Your task to perform on an android device: see sites visited before in the chrome app Image 0: 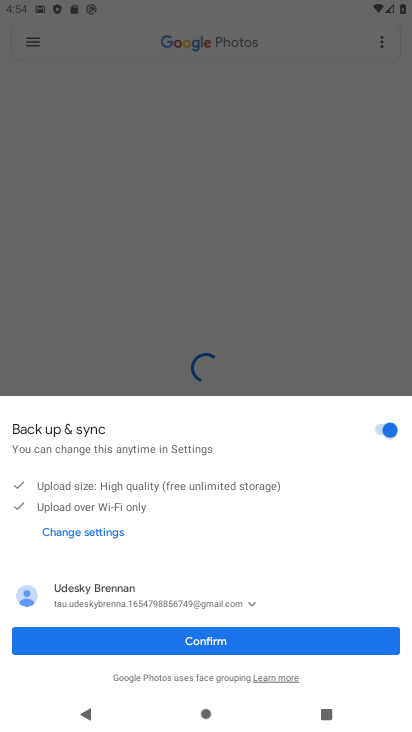
Step 0: press home button
Your task to perform on an android device: see sites visited before in the chrome app Image 1: 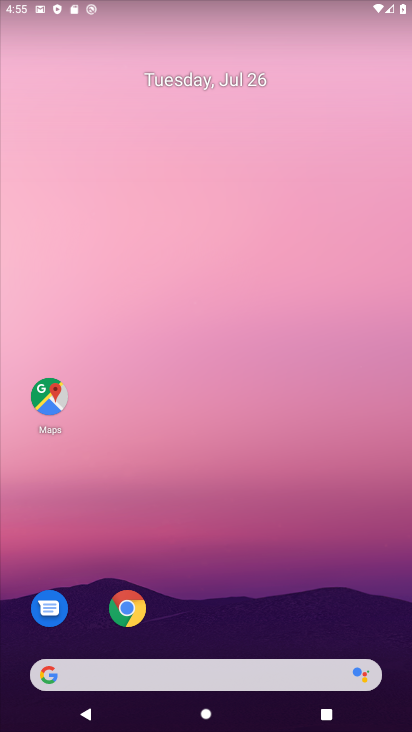
Step 1: drag from (230, 435) to (224, 118)
Your task to perform on an android device: see sites visited before in the chrome app Image 2: 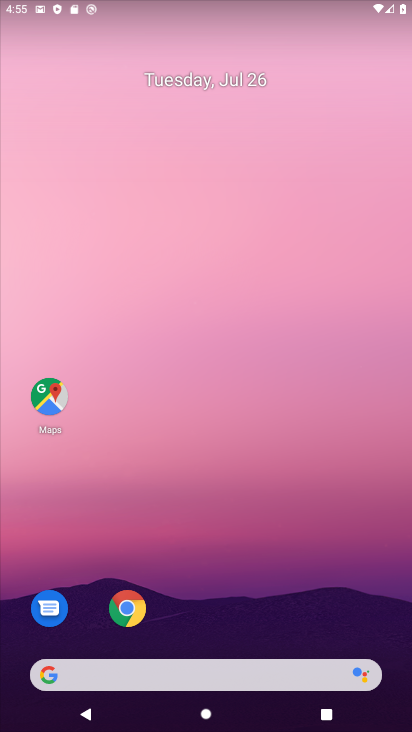
Step 2: drag from (268, 598) to (316, 177)
Your task to perform on an android device: see sites visited before in the chrome app Image 3: 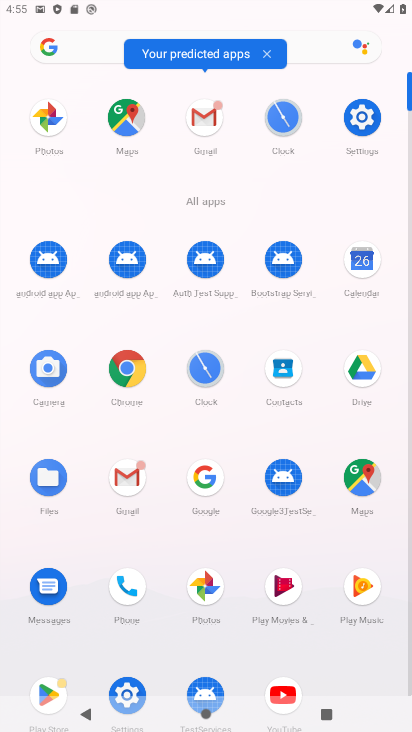
Step 3: click (128, 370)
Your task to perform on an android device: see sites visited before in the chrome app Image 4: 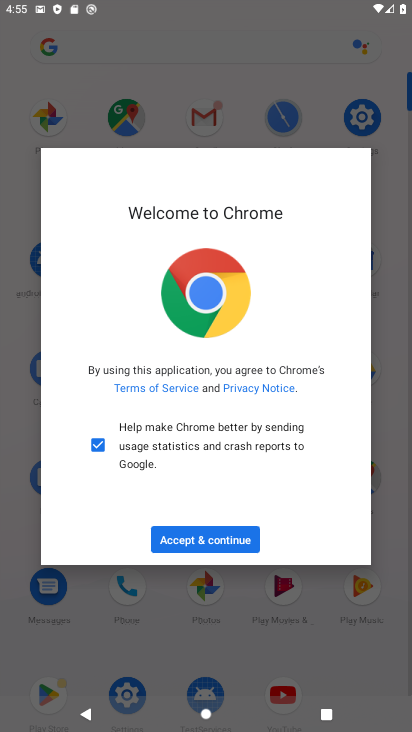
Step 4: click (213, 549)
Your task to perform on an android device: see sites visited before in the chrome app Image 5: 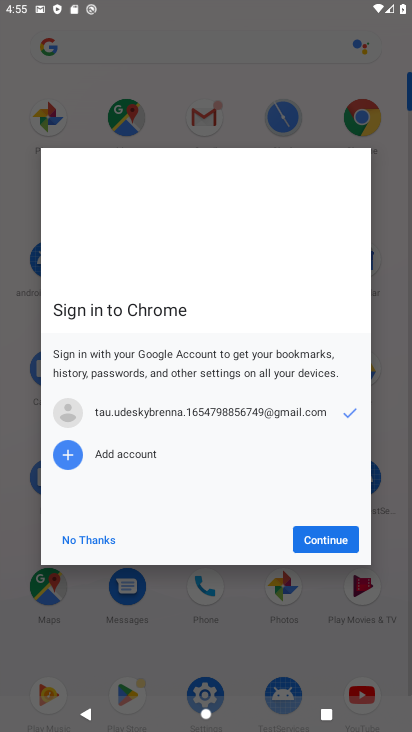
Step 5: click (310, 541)
Your task to perform on an android device: see sites visited before in the chrome app Image 6: 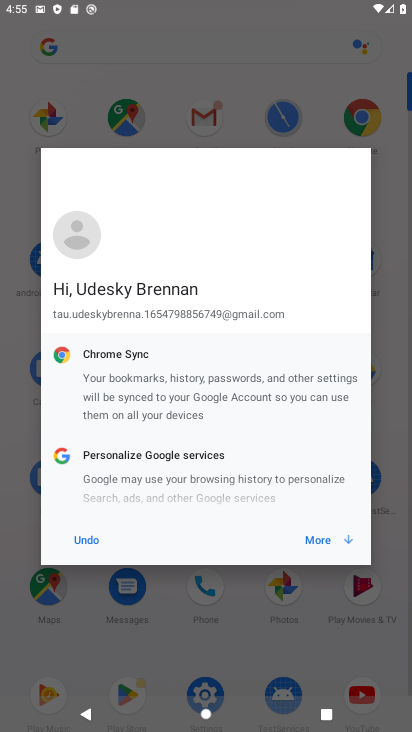
Step 6: click (312, 541)
Your task to perform on an android device: see sites visited before in the chrome app Image 7: 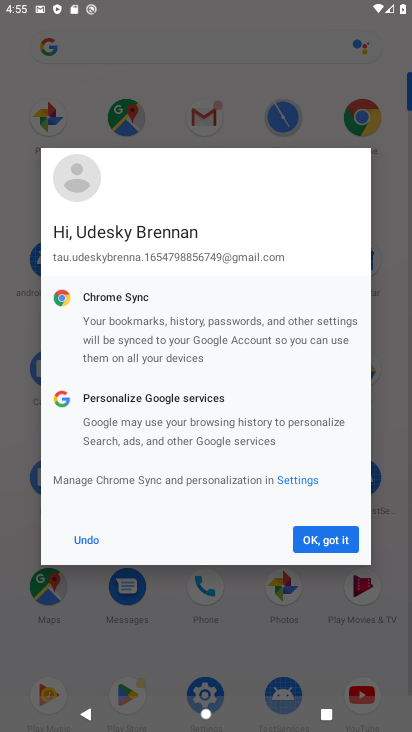
Step 7: click (313, 541)
Your task to perform on an android device: see sites visited before in the chrome app Image 8: 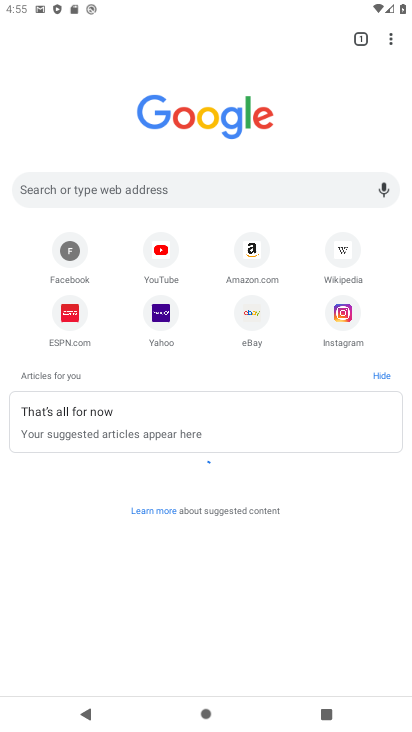
Step 8: task complete